Your task to perform on an android device: set the timer Image 0: 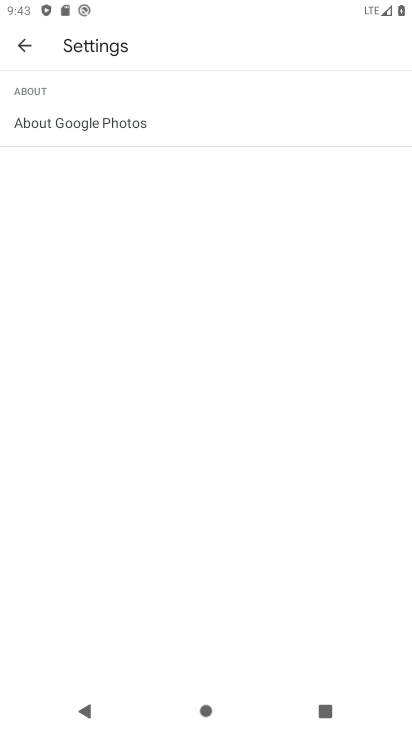
Step 0: press home button
Your task to perform on an android device: set the timer Image 1: 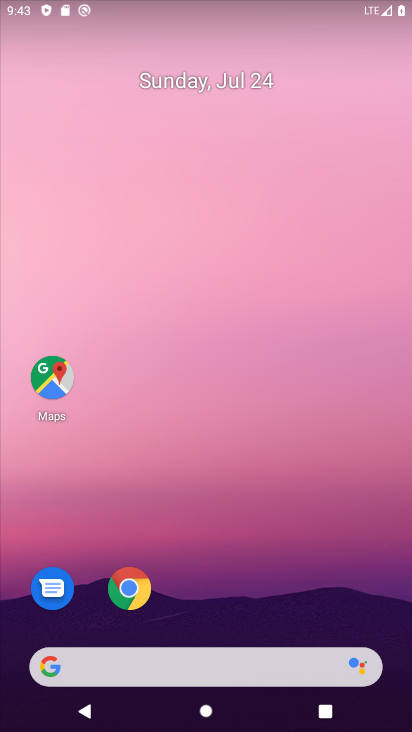
Step 1: drag from (292, 701) to (331, 9)
Your task to perform on an android device: set the timer Image 2: 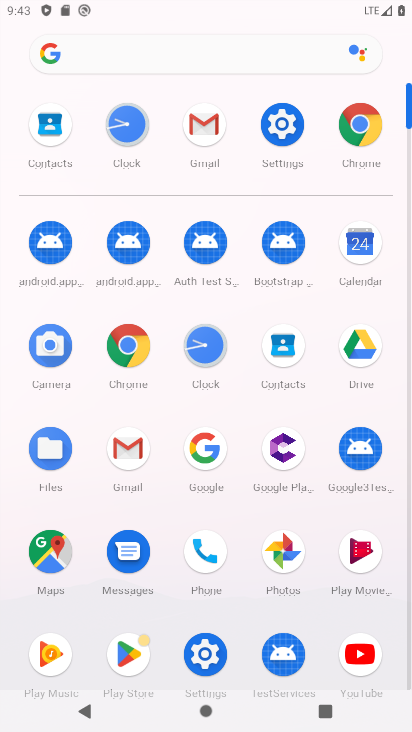
Step 2: click (131, 127)
Your task to perform on an android device: set the timer Image 3: 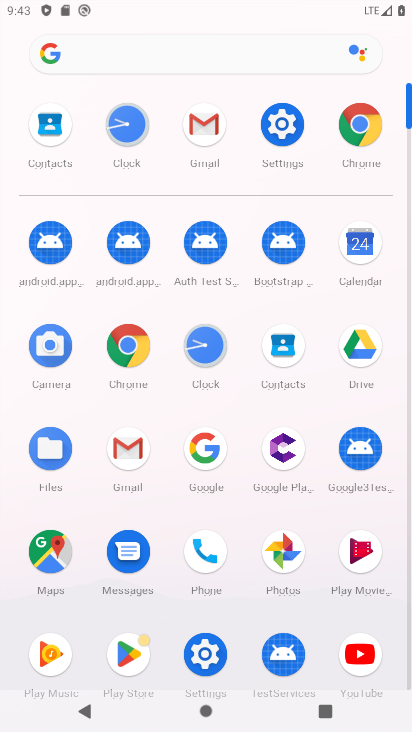
Step 3: click (131, 127)
Your task to perform on an android device: set the timer Image 4: 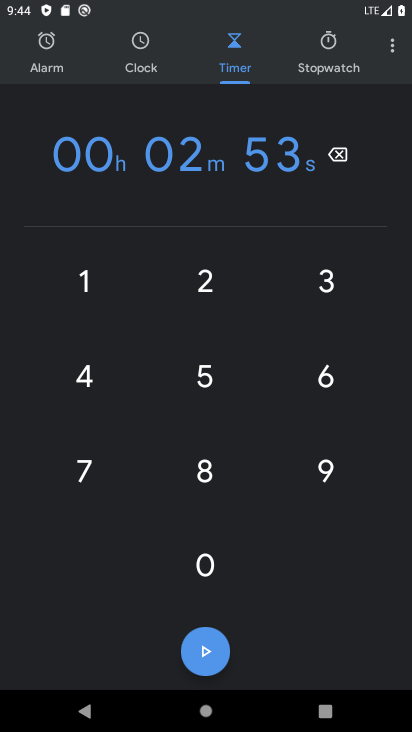
Step 4: click (195, 381)
Your task to perform on an android device: set the timer Image 5: 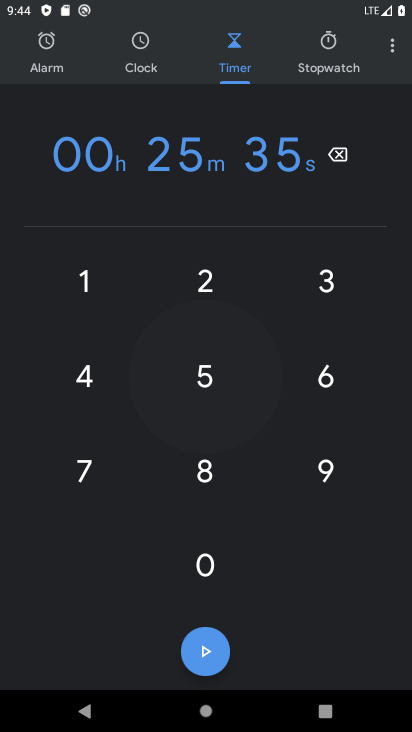
Step 5: click (199, 461)
Your task to perform on an android device: set the timer Image 6: 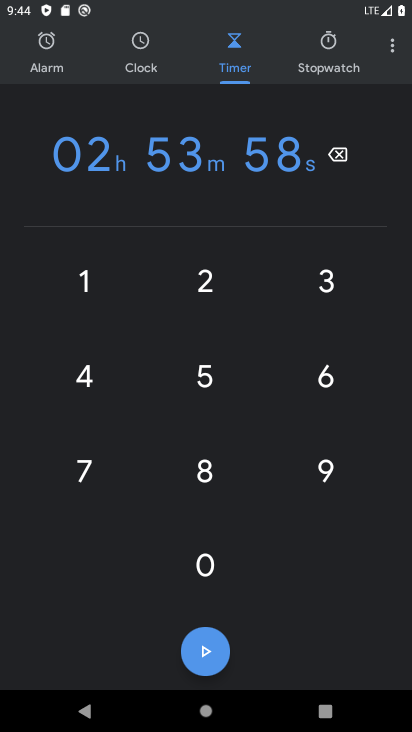
Step 6: click (330, 479)
Your task to perform on an android device: set the timer Image 7: 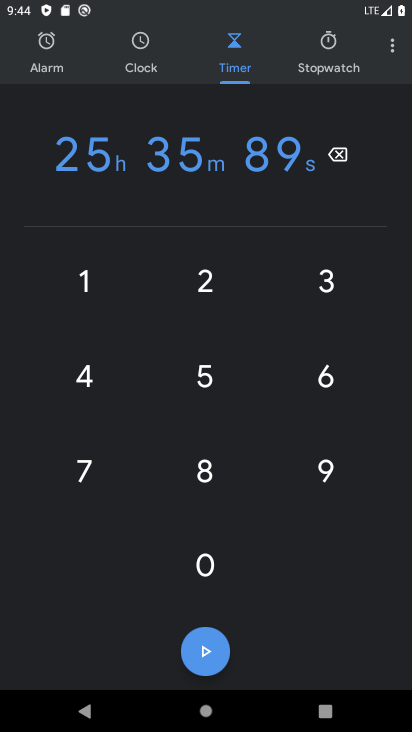
Step 7: click (330, 380)
Your task to perform on an android device: set the timer Image 8: 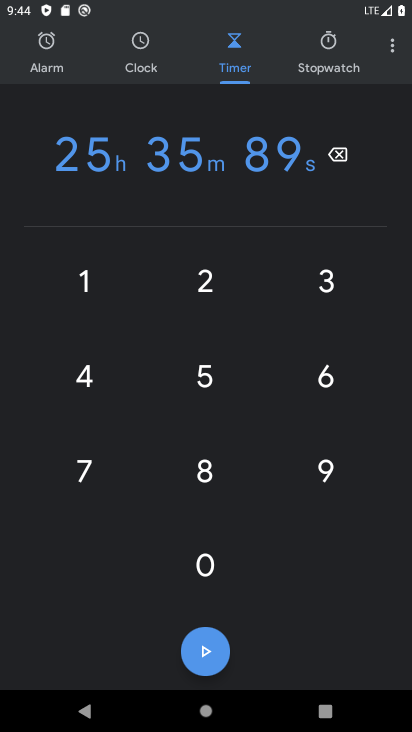
Step 8: task complete